Your task to perform on an android device: add a contact Image 0: 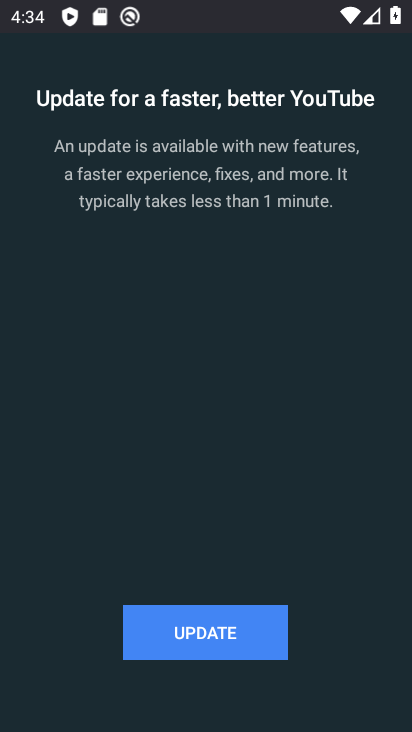
Step 0: press home button
Your task to perform on an android device: add a contact Image 1: 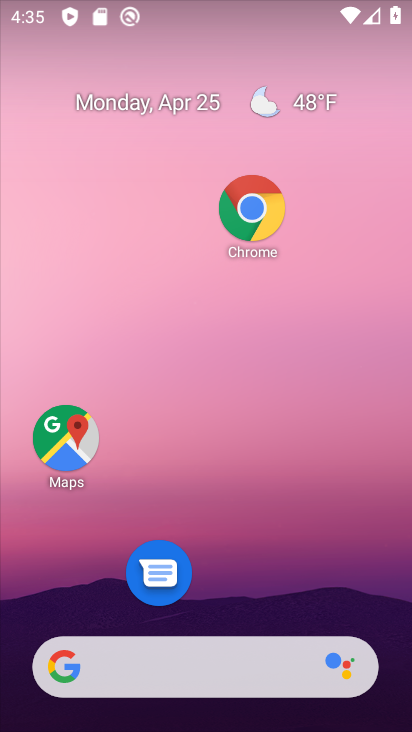
Step 1: drag from (210, 473) to (193, 52)
Your task to perform on an android device: add a contact Image 2: 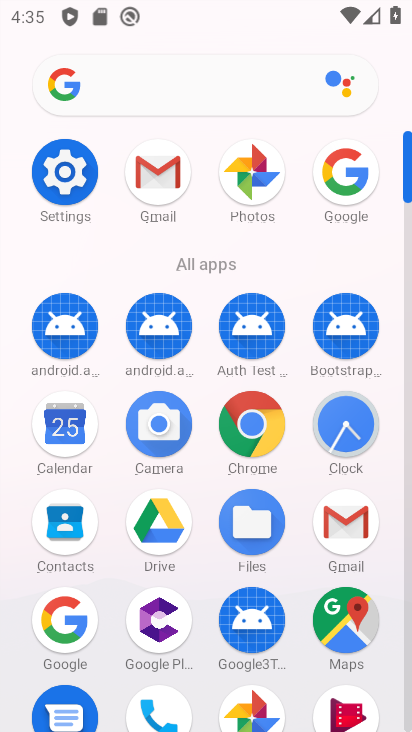
Step 2: click (65, 530)
Your task to perform on an android device: add a contact Image 3: 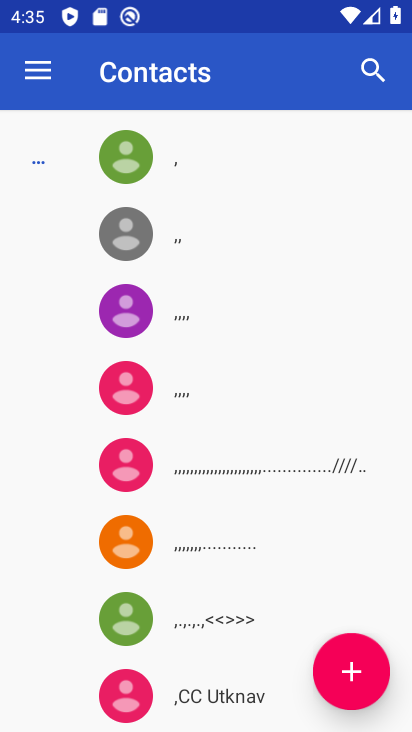
Step 3: click (349, 682)
Your task to perform on an android device: add a contact Image 4: 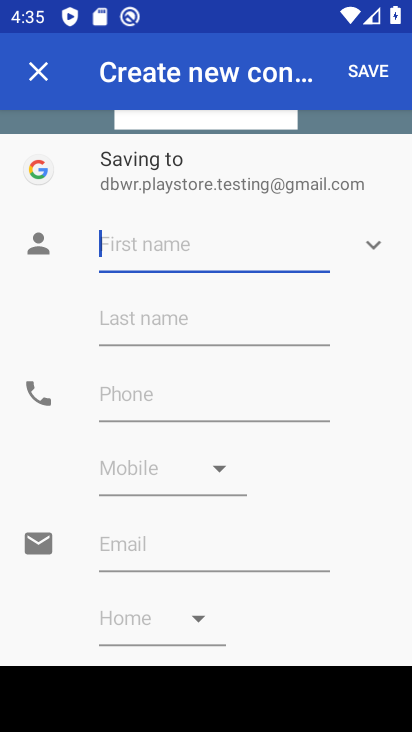
Step 4: type "thftfh"
Your task to perform on an android device: add a contact Image 5: 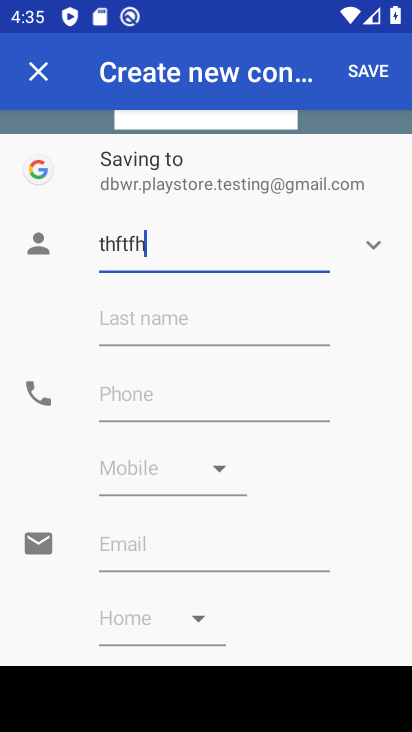
Step 5: click (123, 398)
Your task to perform on an android device: add a contact Image 6: 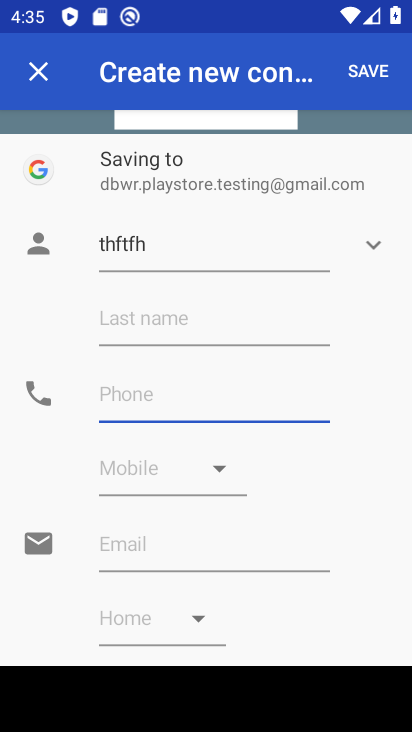
Step 6: type "968797967"
Your task to perform on an android device: add a contact Image 7: 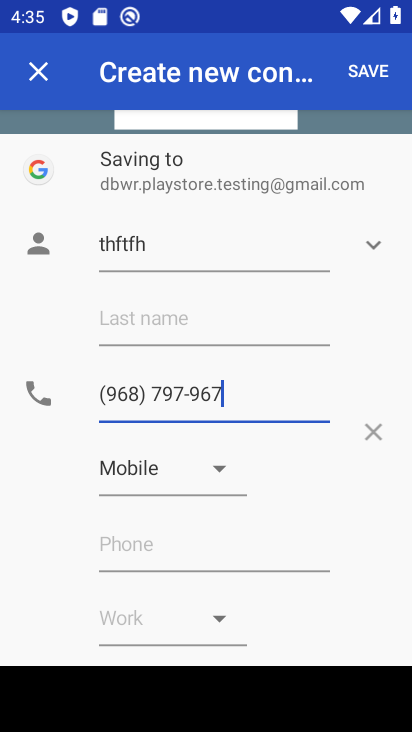
Step 7: click (368, 78)
Your task to perform on an android device: add a contact Image 8: 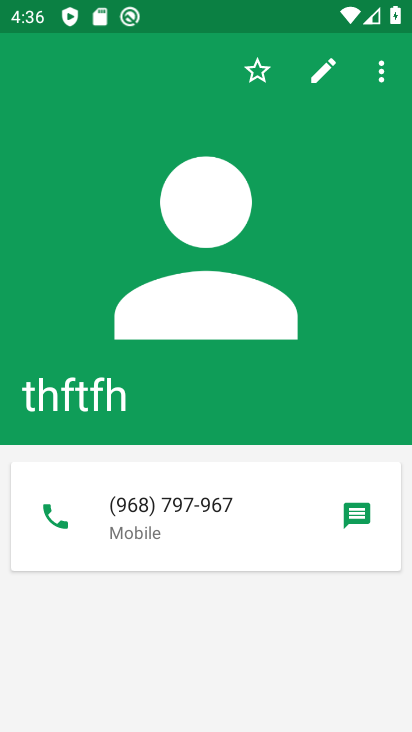
Step 8: task complete